Your task to perform on an android device: open the mobile data screen to see how much data has been used Image 0: 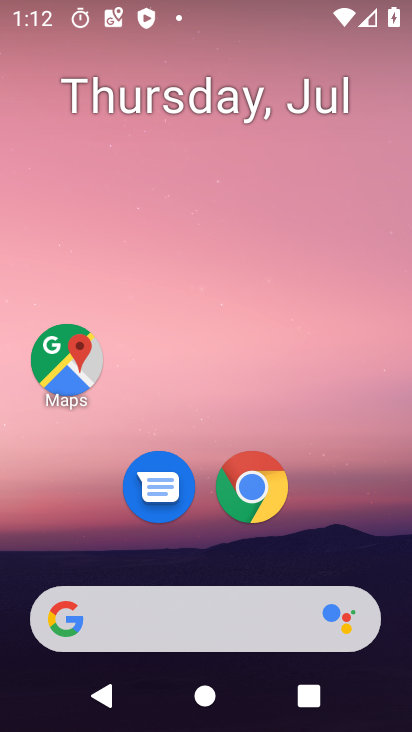
Step 0: drag from (242, 595) to (297, 171)
Your task to perform on an android device: open the mobile data screen to see how much data has been used Image 1: 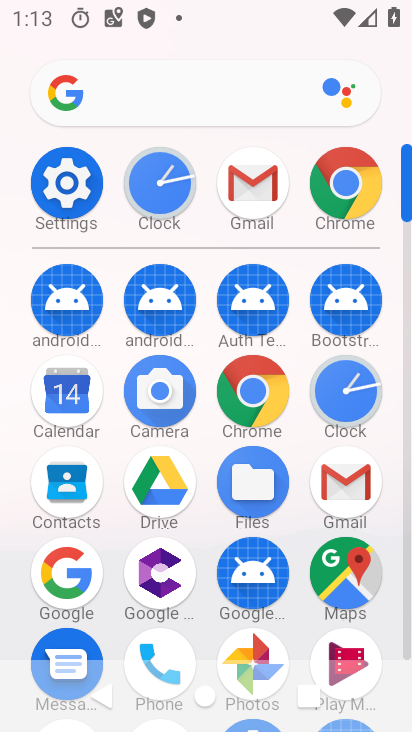
Step 1: click (89, 202)
Your task to perform on an android device: open the mobile data screen to see how much data has been used Image 2: 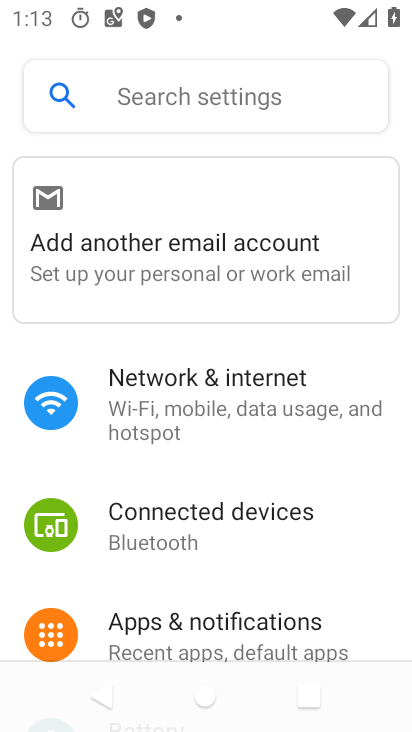
Step 2: drag from (259, 548) to (263, 377)
Your task to perform on an android device: open the mobile data screen to see how much data has been used Image 3: 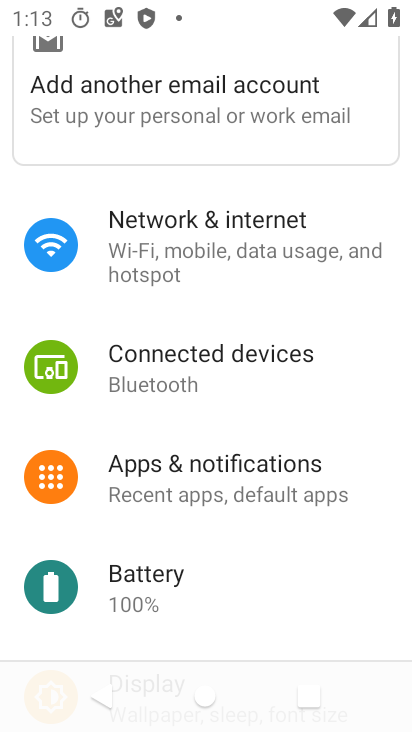
Step 3: click (217, 256)
Your task to perform on an android device: open the mobile data screen to see how much data has been used Image 4: 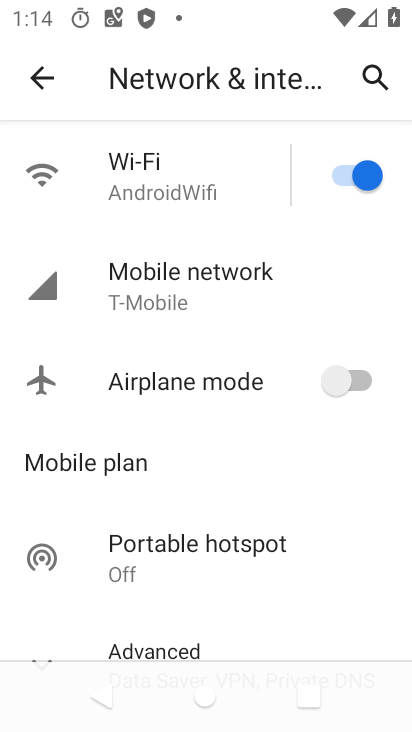
Step 4: click (186, 289)
Your task to perform on an android device: open the mobile data screen to see how much data has been used Image 5: 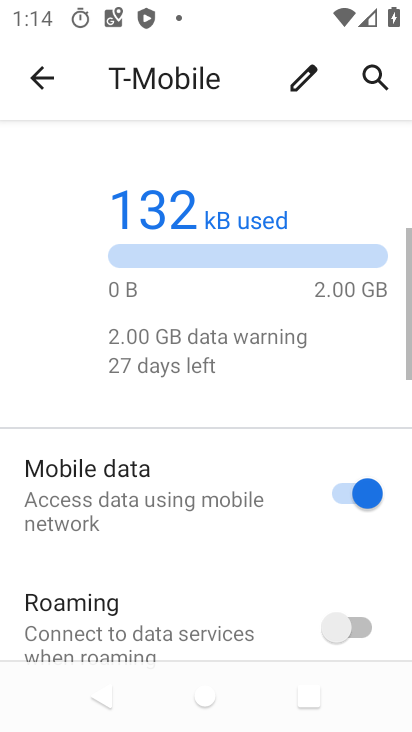
Step 5: drag from (215, 573) to (213, 260)
Your task to perform on an android device: open the mobile data screen to see how much data has been used Image 6: 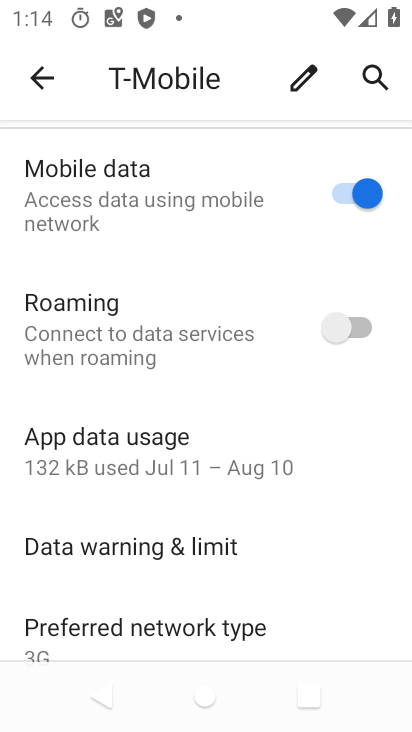
Step 6: click (188, 459)
Your task to perform on an android device: open the mobile data screen to see how much data has been used Image 7: 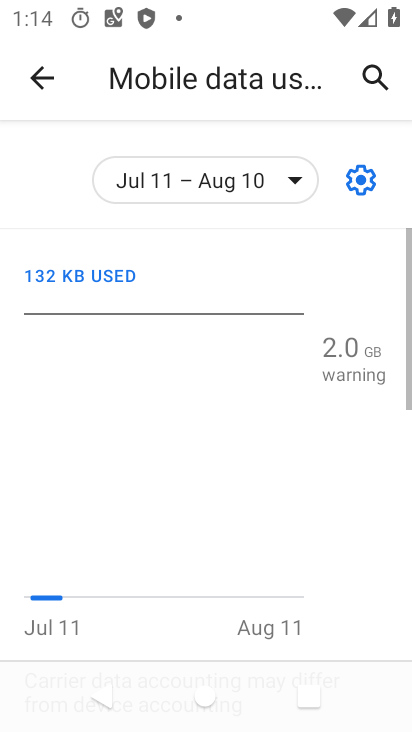
Step 7: task complete